Your task to perform on an android device: open the mobile data screen to see how much data has been used Image 0: 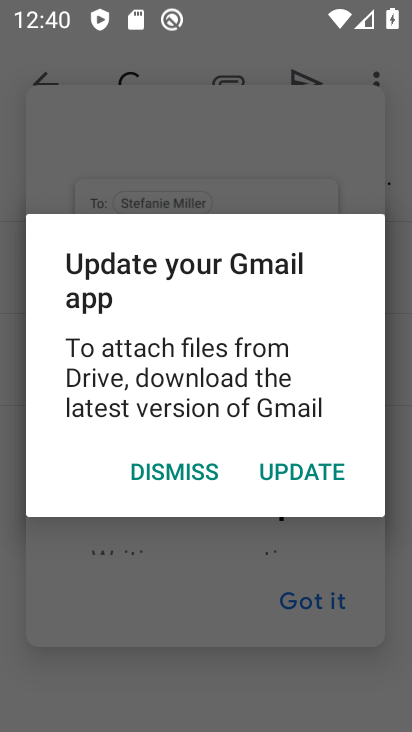
Step 0: press home button
Your task to perform on an android device: open the mobile data screen to see how much data has been used Image 1: 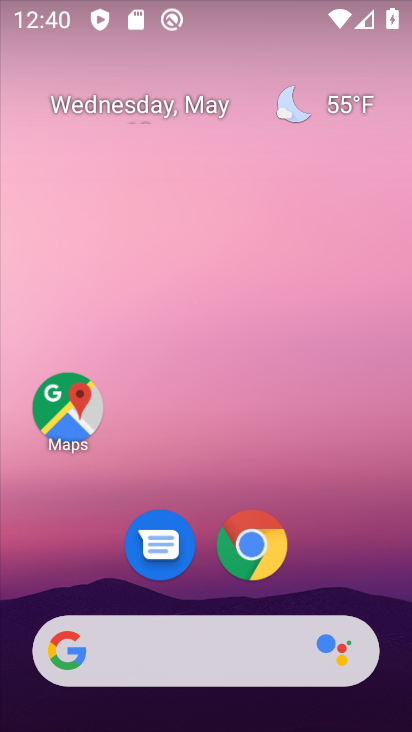
Step 1: drag from (341, 7) to (337, 416)
Your task to perform on an android device: open the mobile data screen to see how much data has been used Image 2: 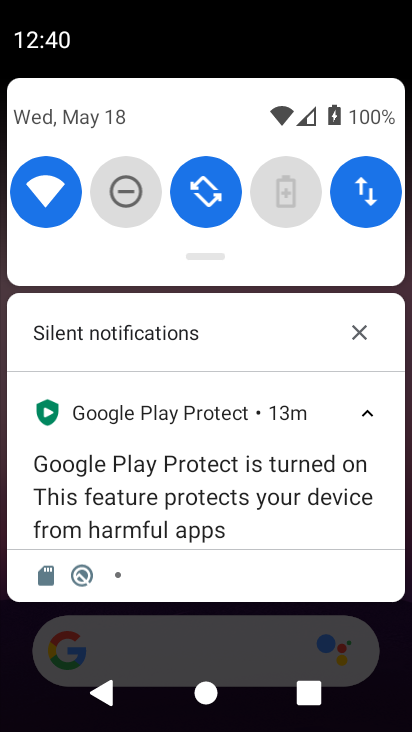
Step 2: click (380, 188)
Your task to perform on an android device: open the mobile data screen to see how much data has been used Image 3: 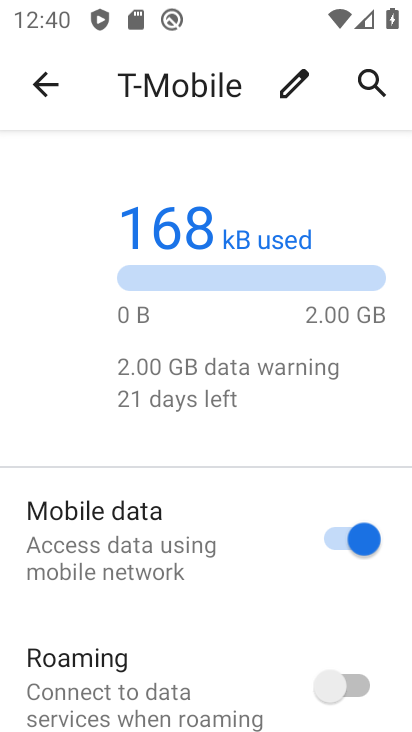
Step 3: task complete